Your task to perform on an android device: Show the shopping cart on target.com. Add duracell triple a to the cart on target.com Image 0: 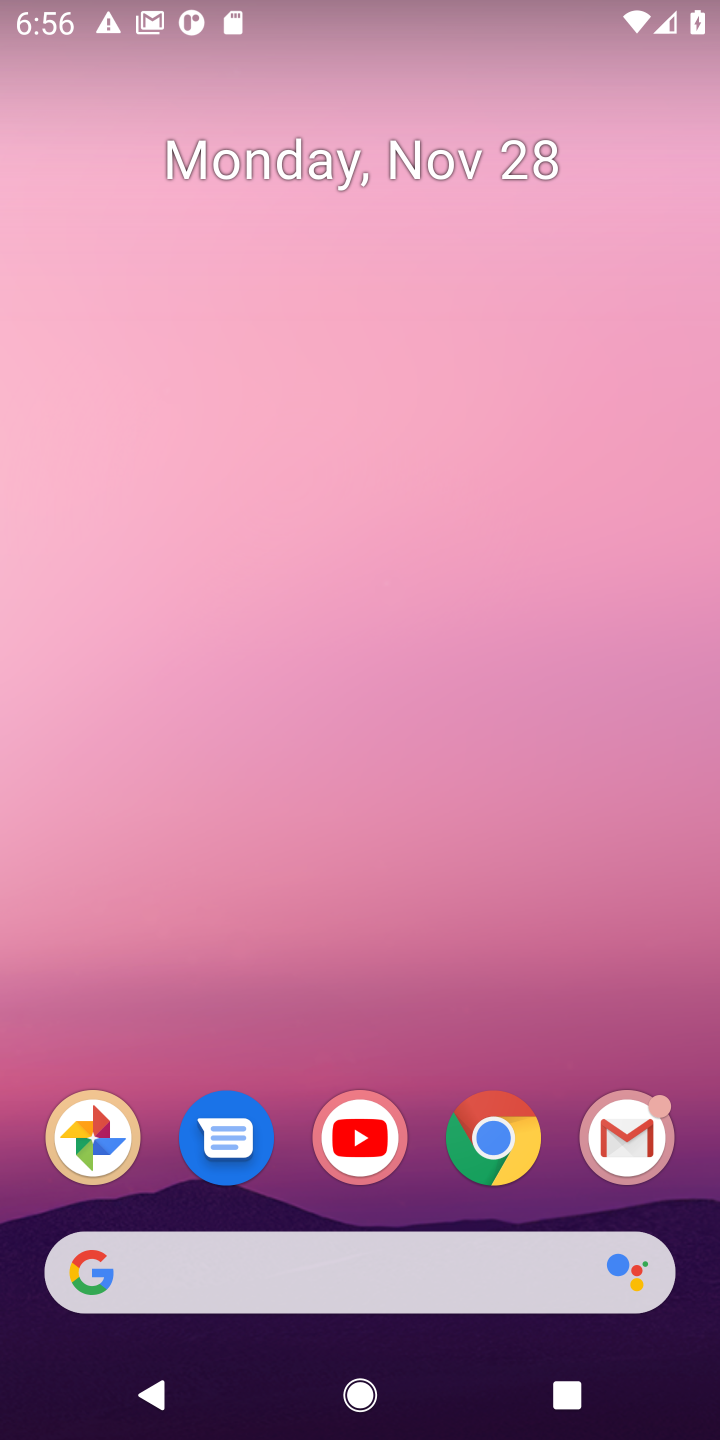
Step 0: click (502, 1157)
Your task to perform on an android device: Show the shopping cart on target.com. Add duracell triple a to the cart on target.com Image 1: 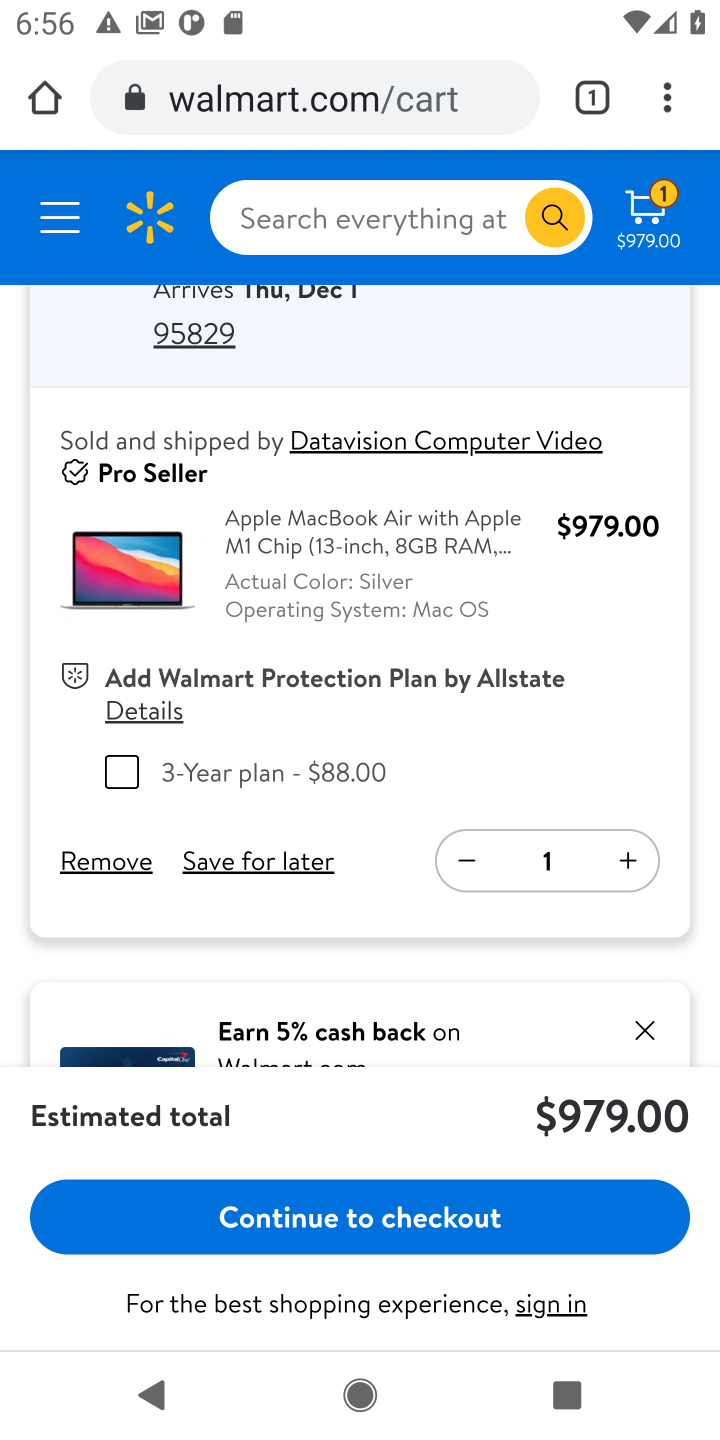
Step 1: click (338, 85)
Your task to perform on an android device: Show the shopping cart on target.com. Add duracell triple a to the cart on target.com Image 2: 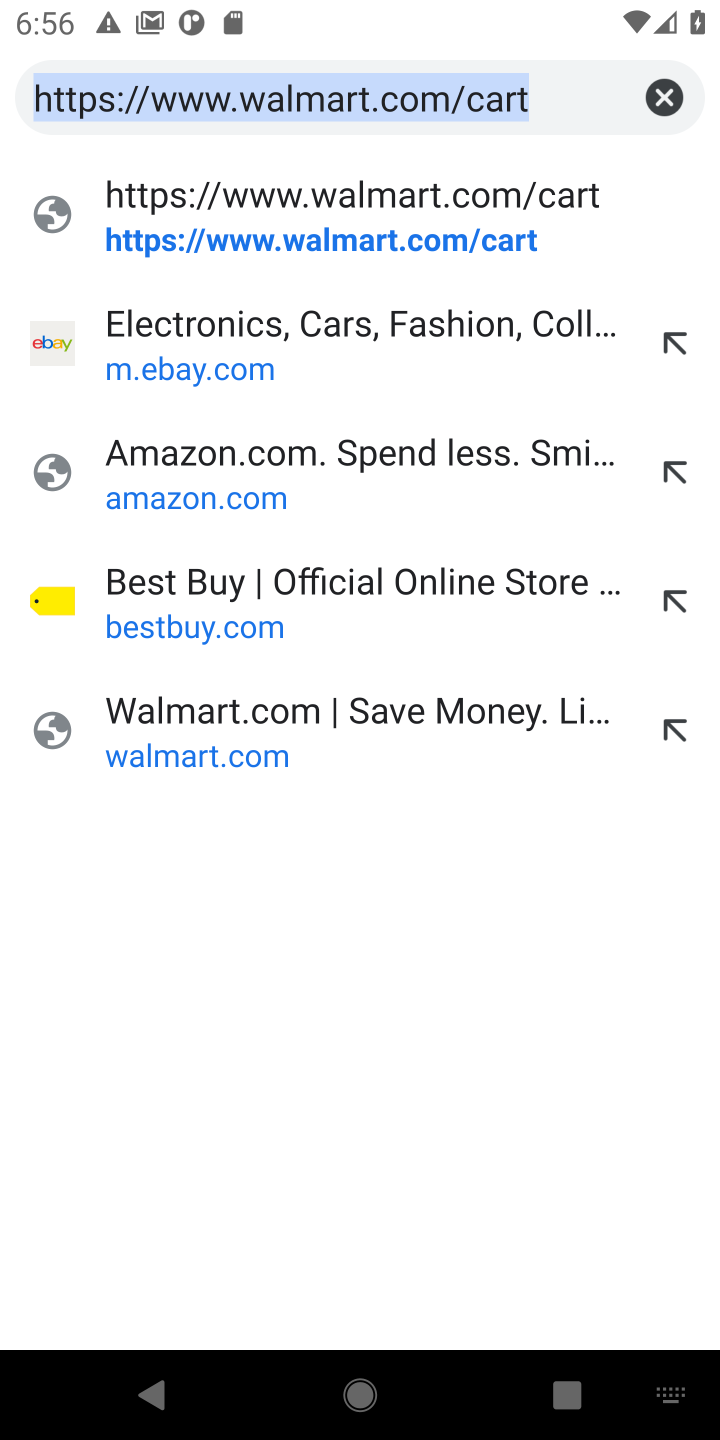
Step 2: type "target.com"
Your task to perform on an android device: Show the shopping cart on target.com. Add duracell triple a to the cart on target.com Image 3: 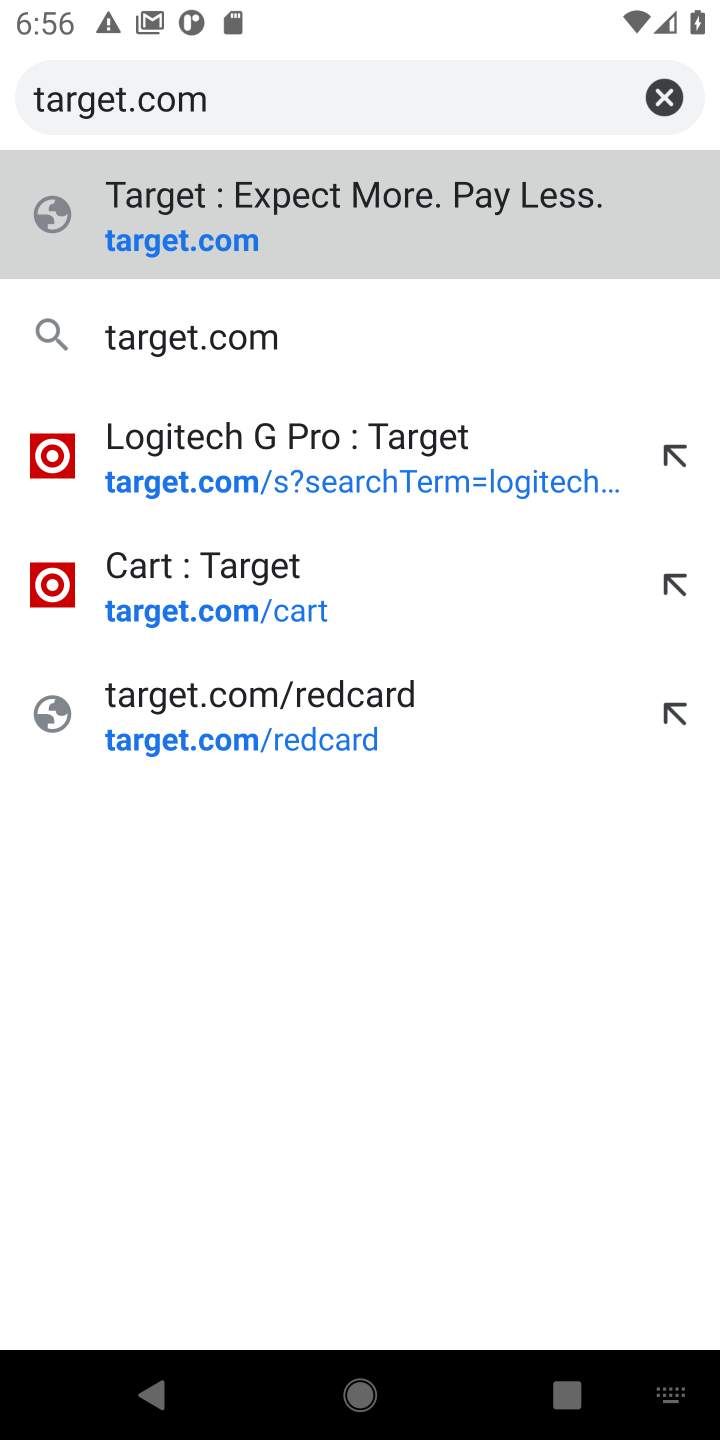
Step 3: click (195, 250)
Your task to perform on an android device: Show the shopping cart on target.com. Add duracell triple a to the cart on target.com Image 4: 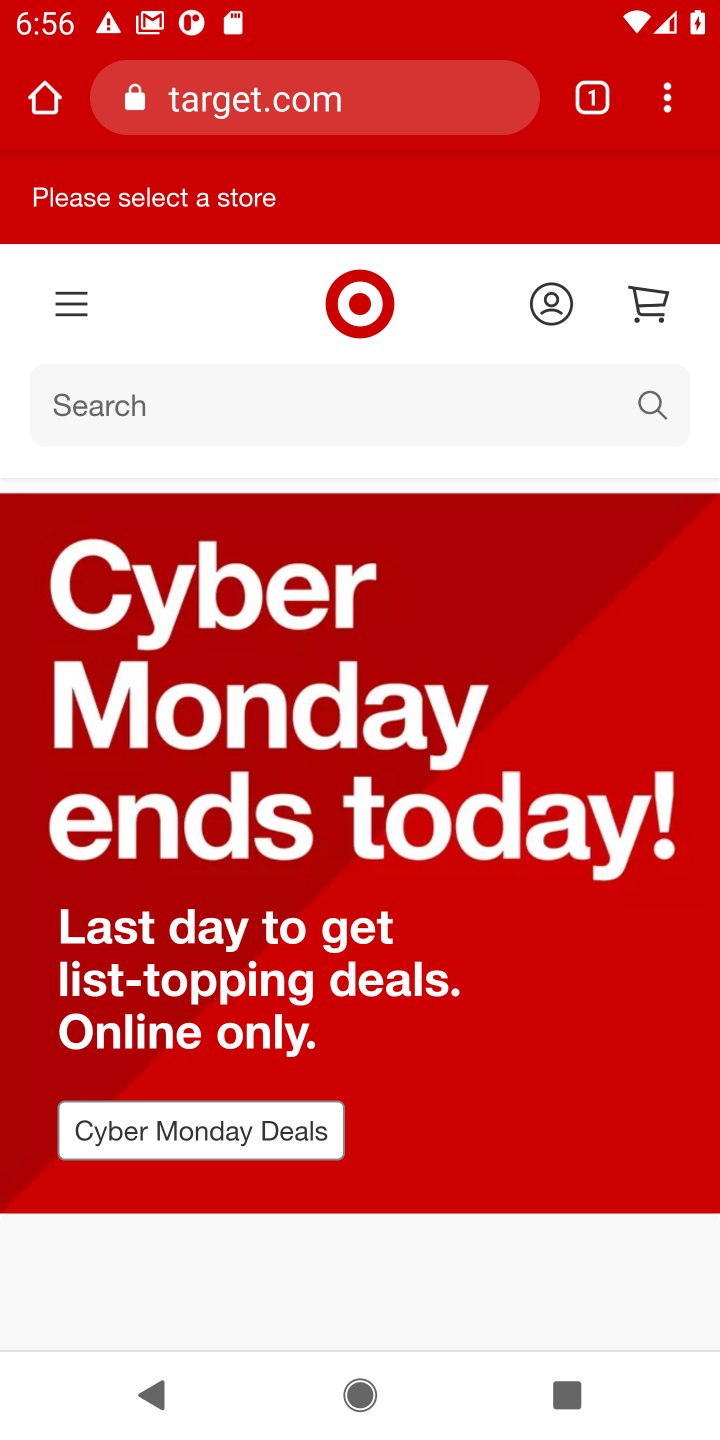
Step 4: click (651, 318)
Your task to perform on an android device: Show the shopping cart on target.com. Add duracell triple a to the cart on target.com Image 5: 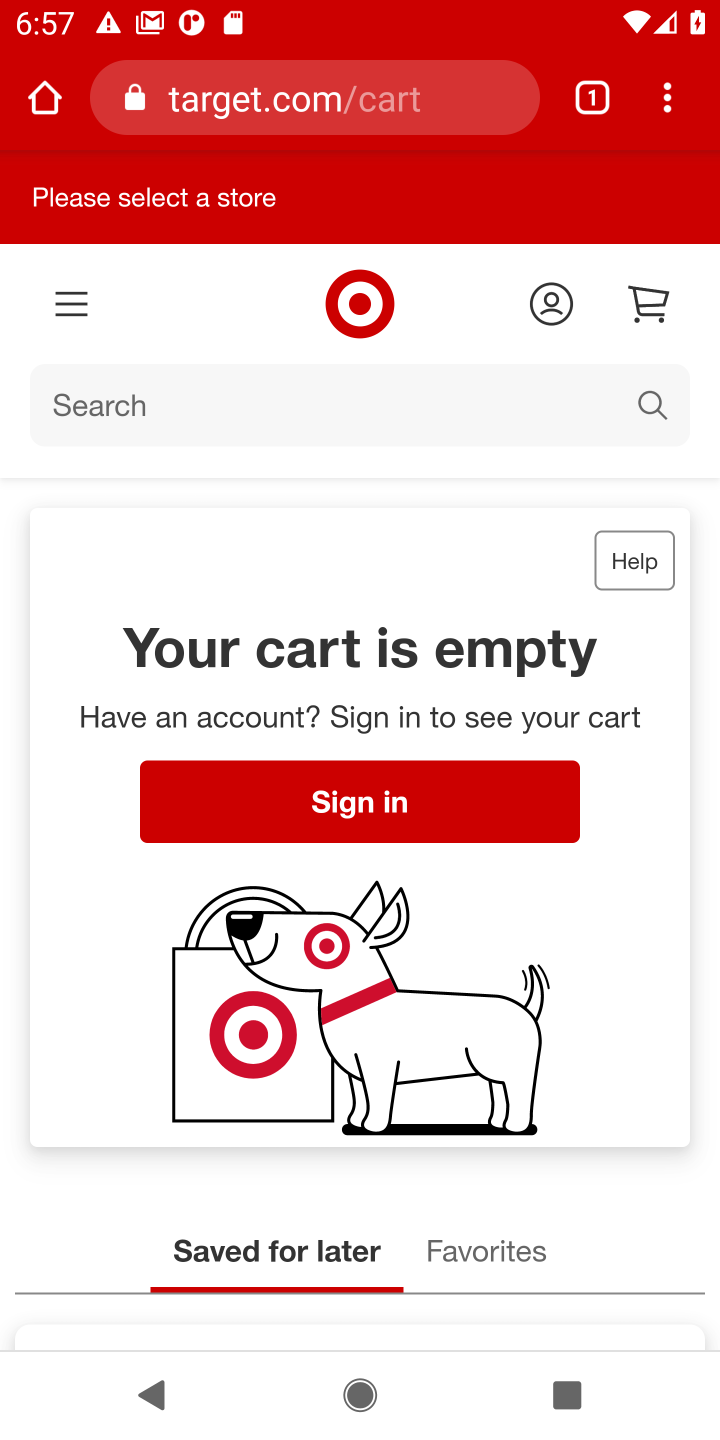
Step 5: click (113, 408)
Your task to perform on an android device: Show the shopping cart on target.com. Add duracell triple a to the cart on target.com Image 6: 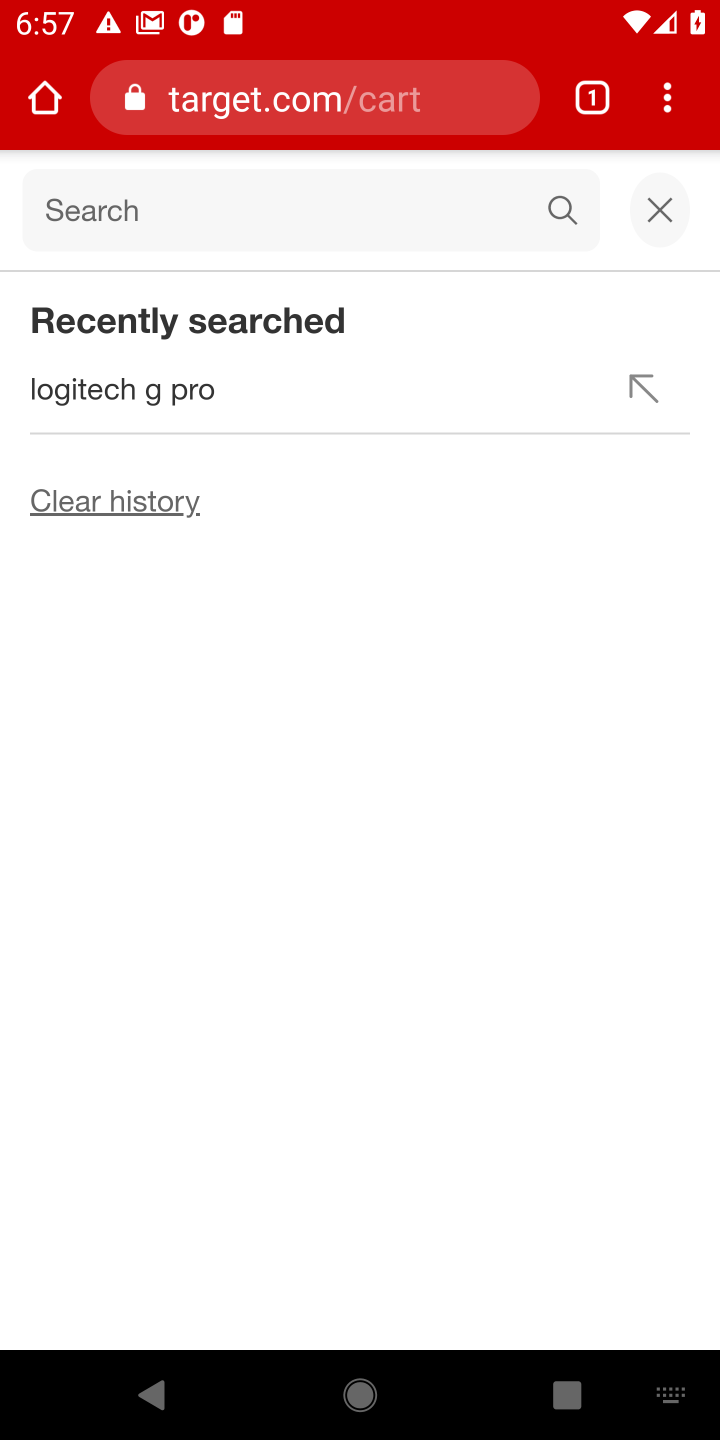
Step 6: type "duracell triple a"
Your task to perform on an android device: Show the shopping cart on target.com. Add duracell triple a to the cart on target.com Image 7: 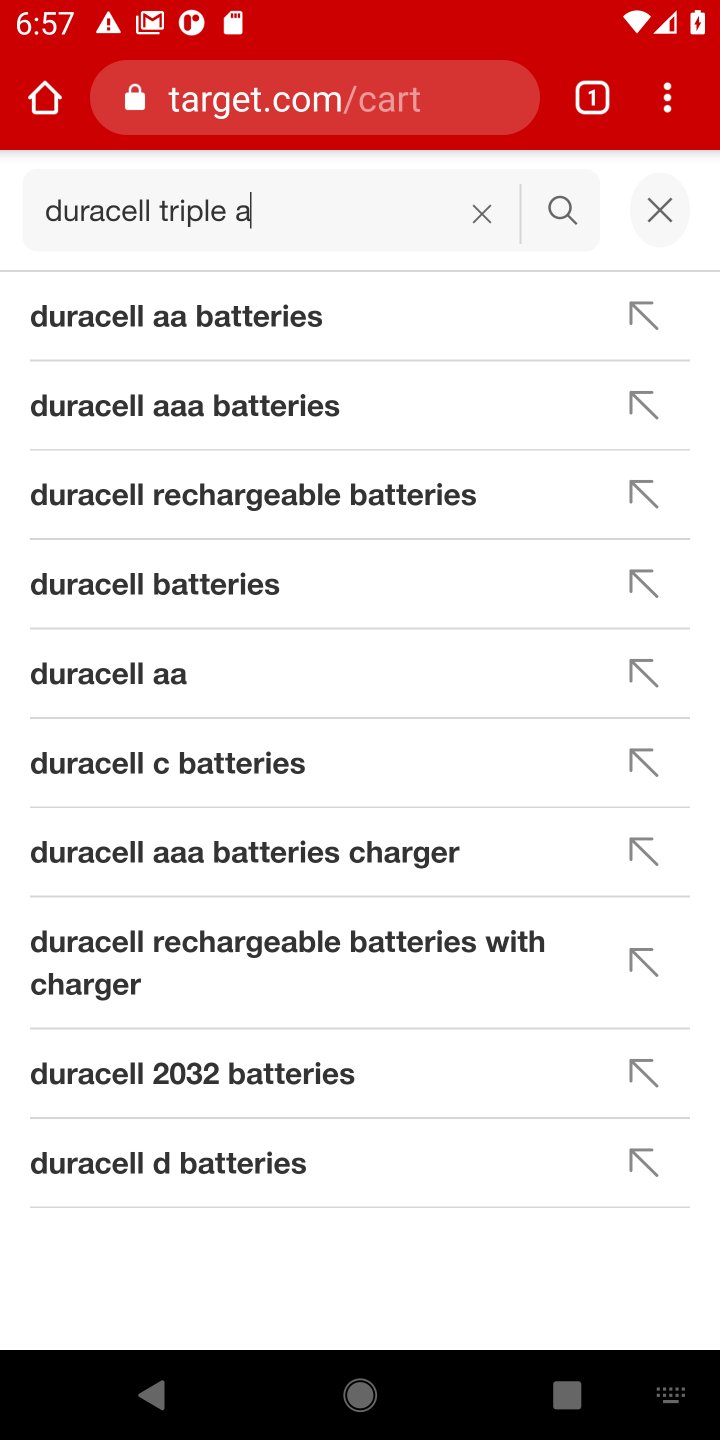
Step 7: click (276, 403)
Your task to perform on an android device: Show the shopping cart on target.com. Add duracell triple a to the cart on target.com Image 8: 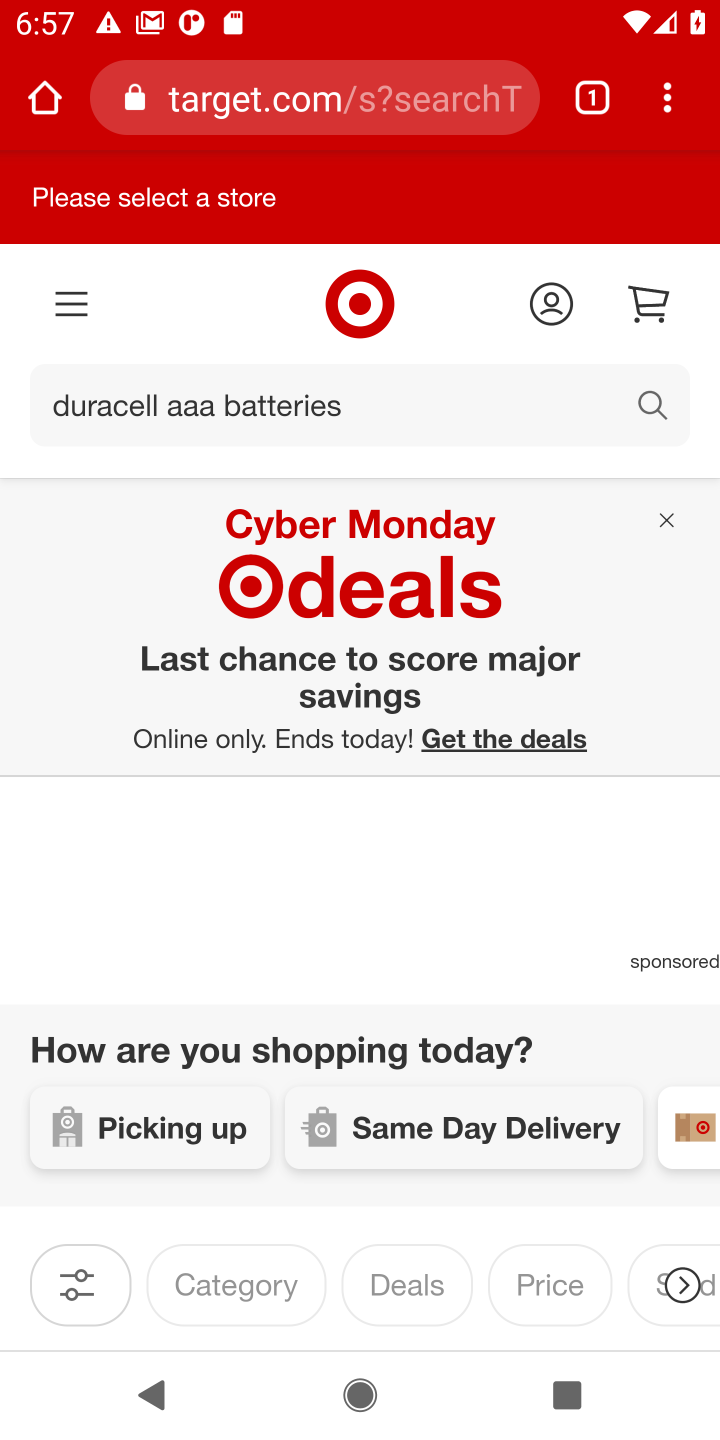
Step 8: drag from (350, 1015) to (327, 467)
Your task to perform on an android device: Show the shopping cart on target.com. Add duracell triple a to the cart on target.com Image 9: 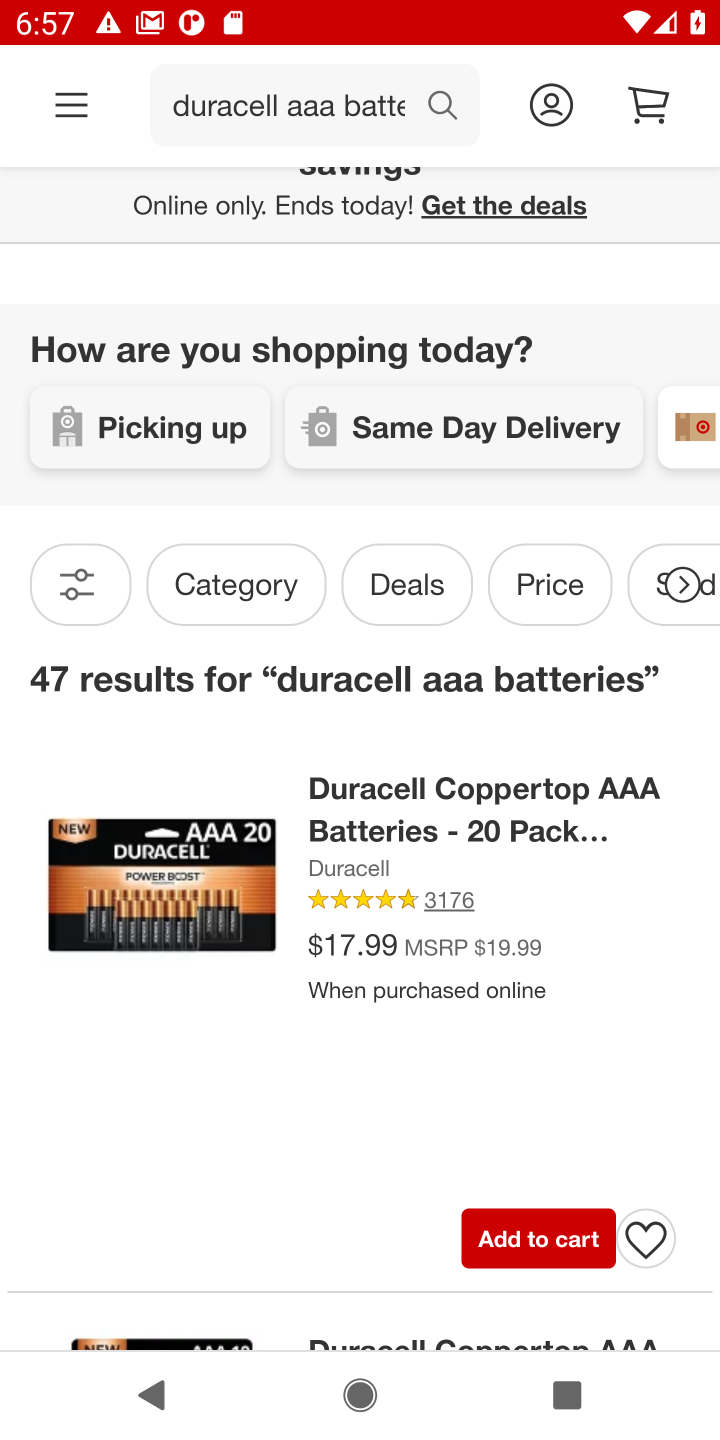
Step 9: drag from (306, 1087) to (323, 688)
Your task to perform on an android device: Show the shopping cart on target.com. Add duracell triple a to the cart on target.com Image 10: 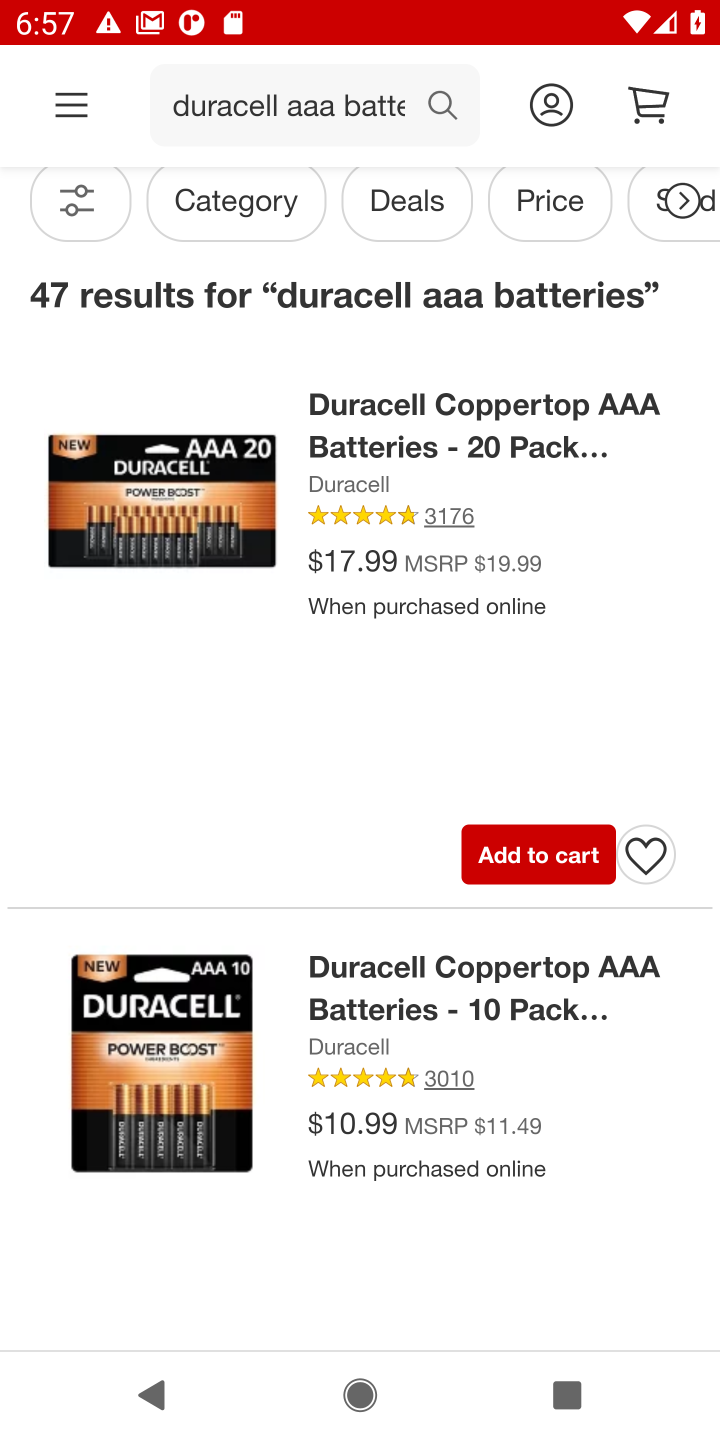
Step 10: click (557, 856)
Your task to perform on an android device: Show the shopping cart on target.com. Add duracell triple a to the cart on target.com Image 11: 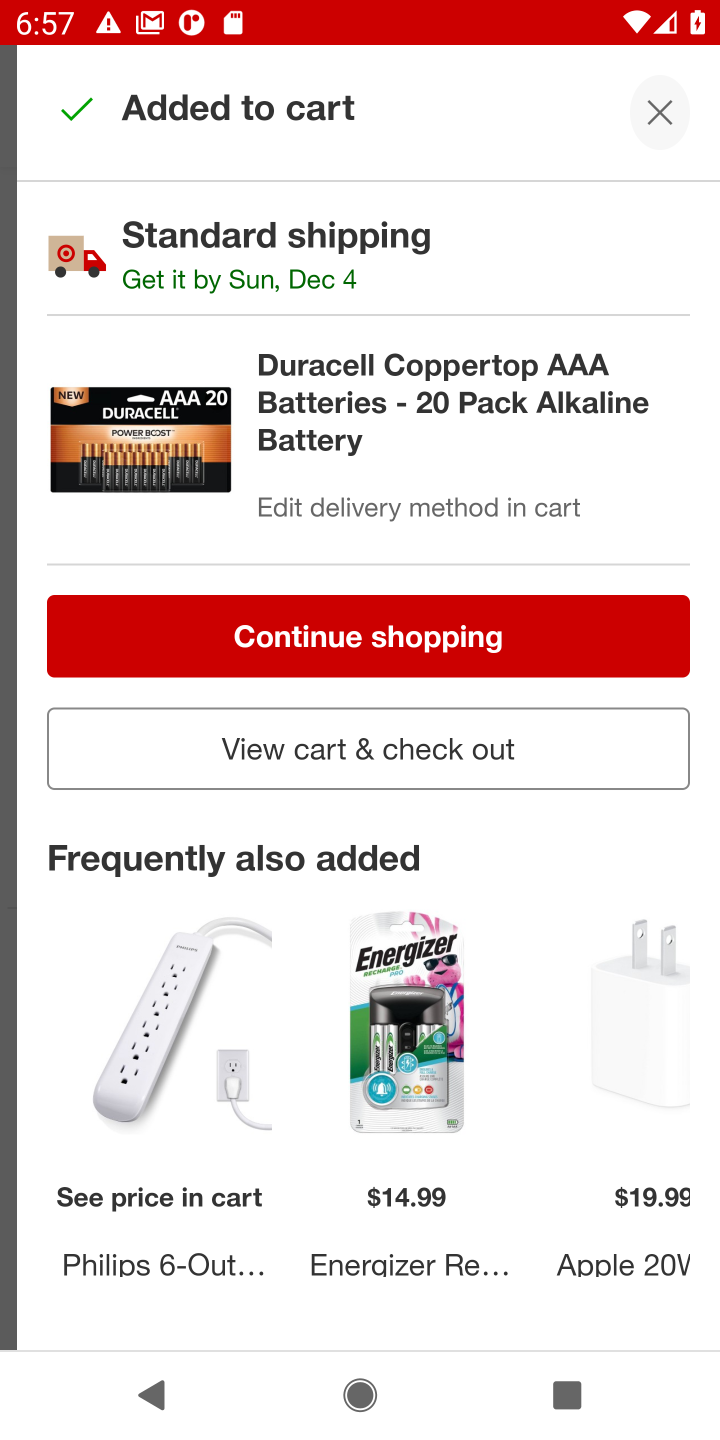
Step 11: task complete